Your task to perform on an android device: Show me popular games on the Play Store Image 0: 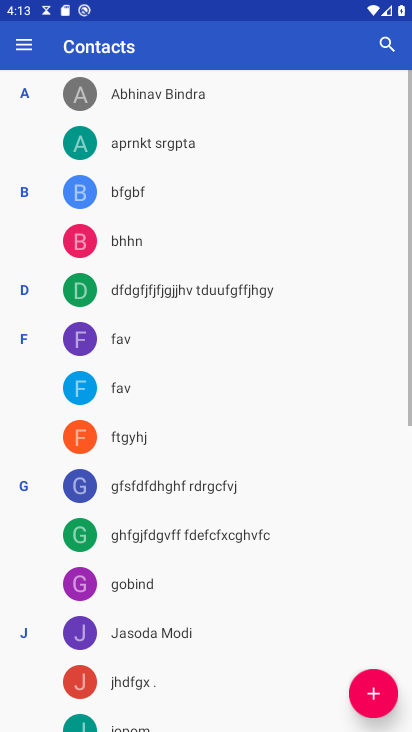
Step 0: press back button
Your task to perform on an android device: Show me popular games on the Play Store Image 1: 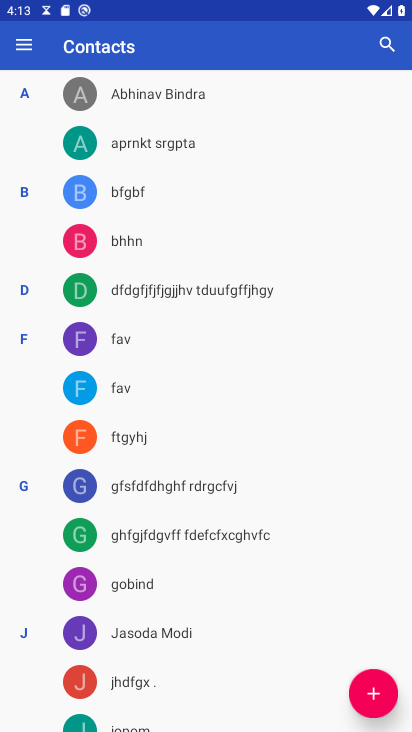
Step 1: press back button
Your task to perform on an android device: Show me popular games on the Play Store Image 2: 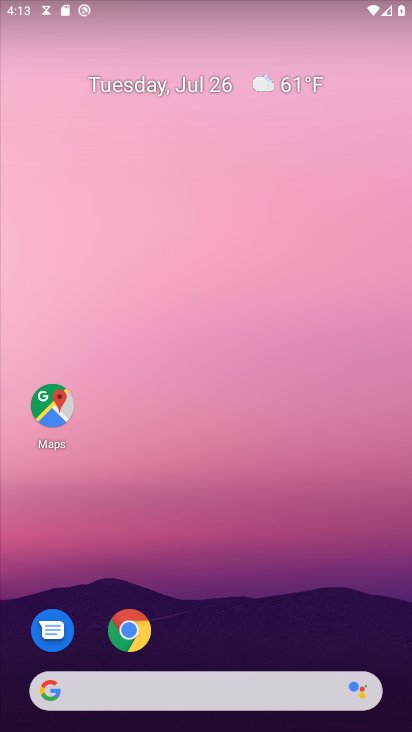
Step 2: drag from (223, 629) to (177, 102)
Your task to perform on an android device: Show me popular games on the Play Store Image 3: 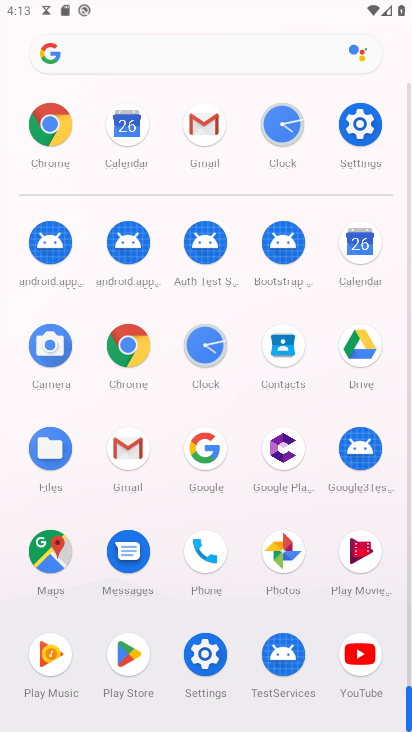
Step 3: click (131, 658)
Your task to perform on an android device: Show me popular games on the Play Store Image 4: 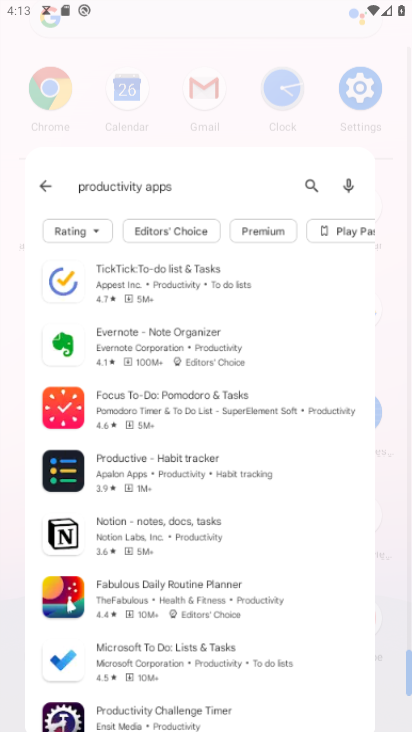
Step 4: click (134, 655)
Your task to perform on an android device: Show me popular games on the Play Store Image 5: 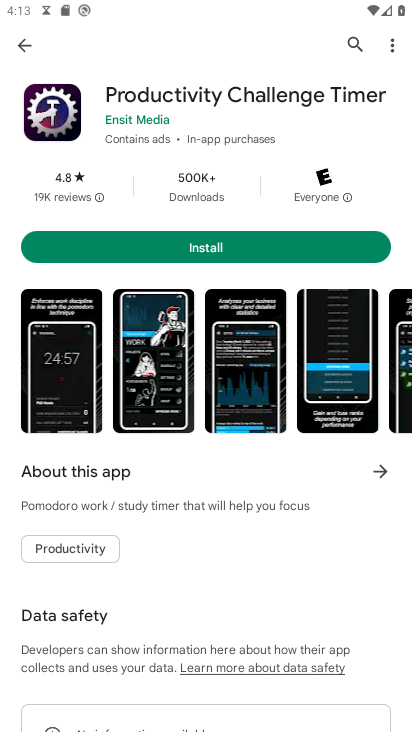
Step 5: click (20, 41)
Your task to perform on an android device: Show me popular games on the Play Store Image 6: 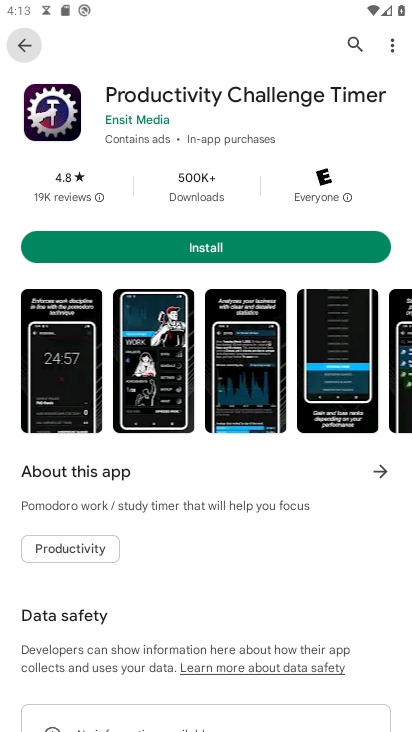
Step 6: click (30, 40)
Your task to perform on an android device: Show me popular games on the Play Store Image 7: 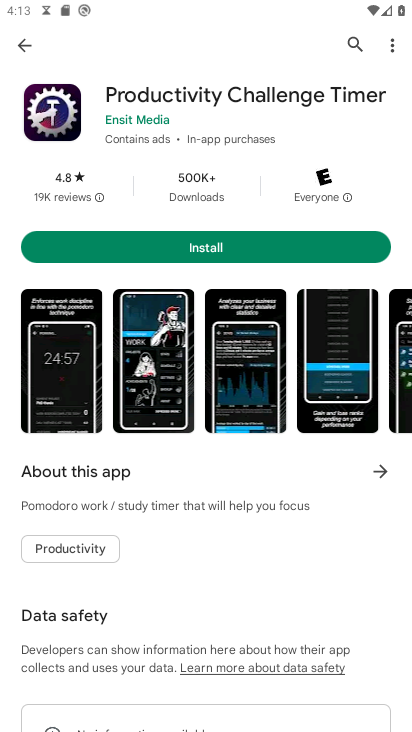
Step 7: click (26, 47)
Your task to perform on an android device: Show me popular games on the Play Store Image 8: 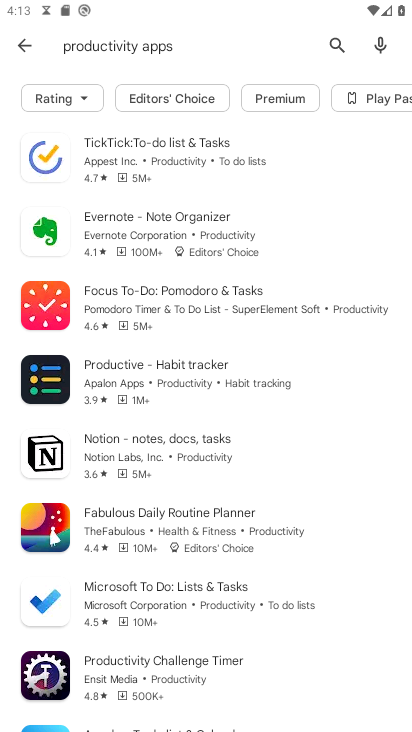
Step 8: click (183, 37)
Your task to perform on an android device: Show me popular games on the Play Store Image 9: 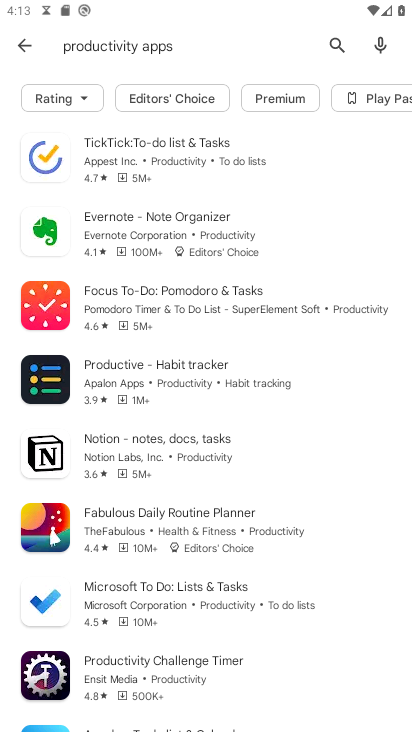
Step 9: click (188, 43)
Your task to perform on an android device: Show me popular games on the Play Store Image 10: 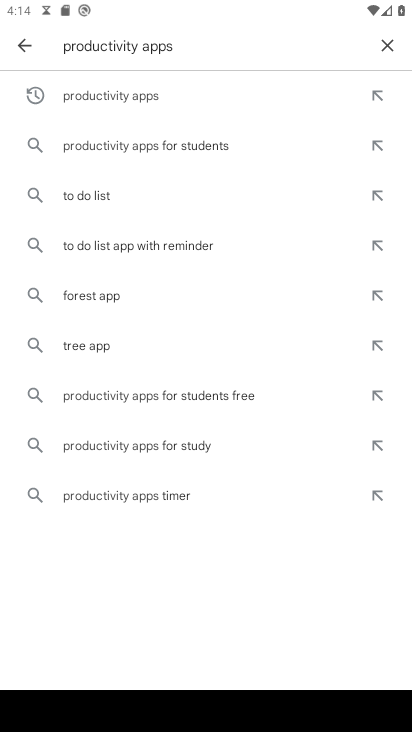
Step 10: click (382, 94)
Your task to perform on an android device: Show me popular games on the Play Store Image 11: 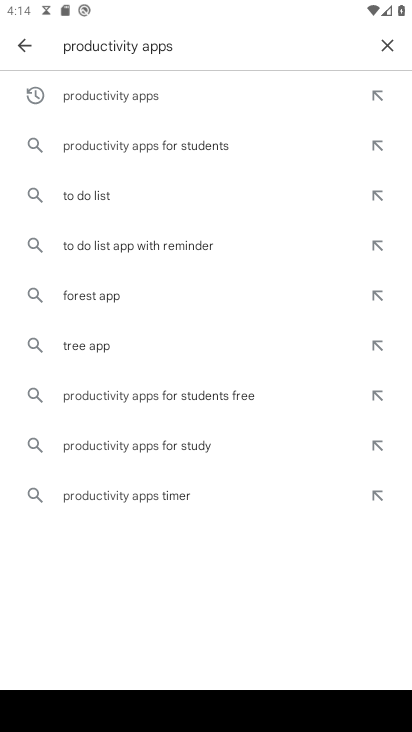
Step 11: click (379, 93)
Your task to perform on an android device: Show me popular games on the Play Store Image 12: 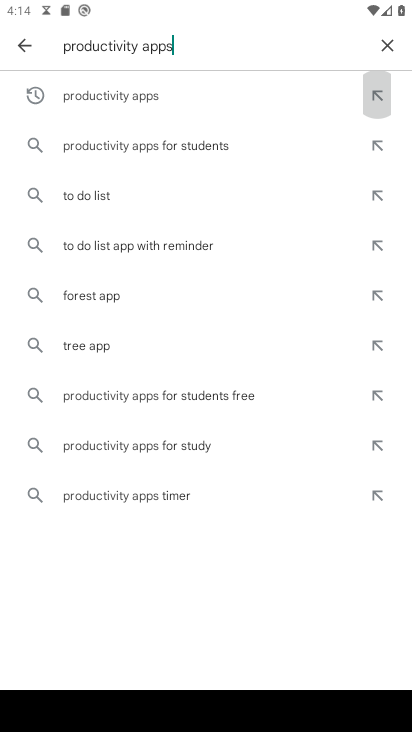
Step 12: click (378, 92)
Your task to perform on an android device: Show me popular games on the Play Store Image 13: 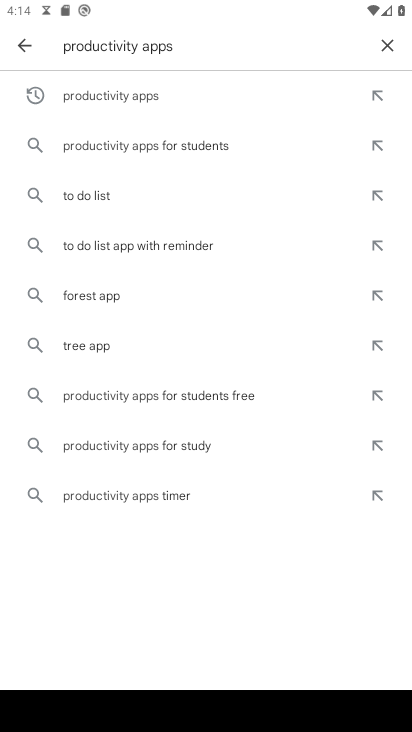
Step 13: click (83, 91)
Your task to perform on an android device: Show me popular games on the Play Store Image 14: 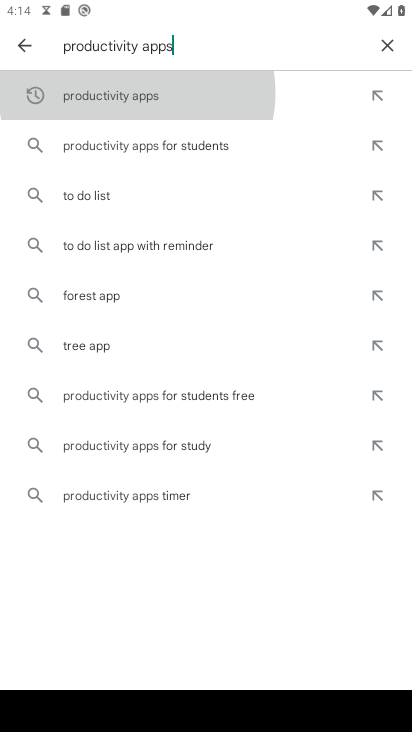
Step 14: click (90, 90)
Your task to perform on an android device: Show me popular games on the Play Store Image 15: 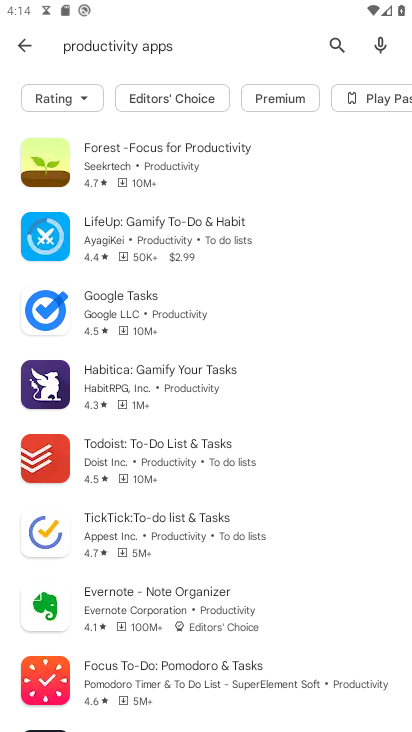
Step 15: task complete